Your task to perform on an android device: Go to sound settings Image 0: 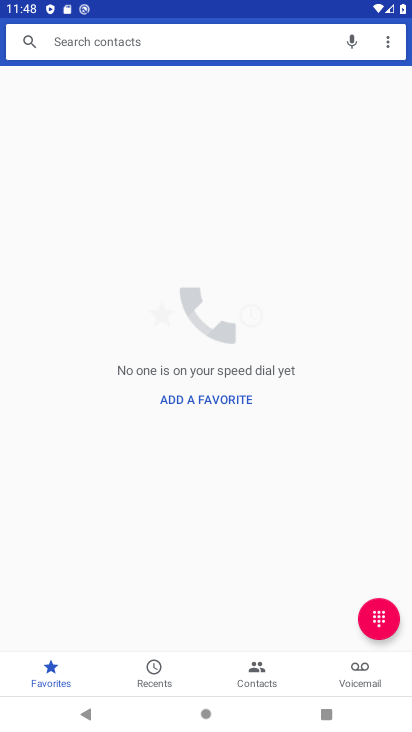
Step 0: press home button
Your task to perform on an android device: Go to sound settings Image 1: 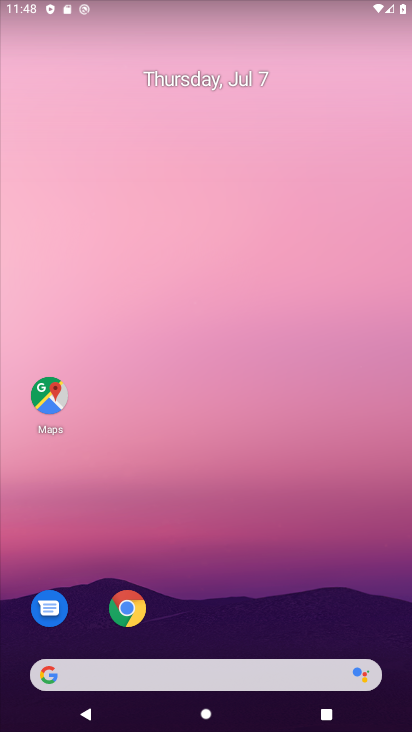
Step 1: drag from (279, 602) to (256, 161)
Your task to perform on an android device: Go to sound settings Image 2: 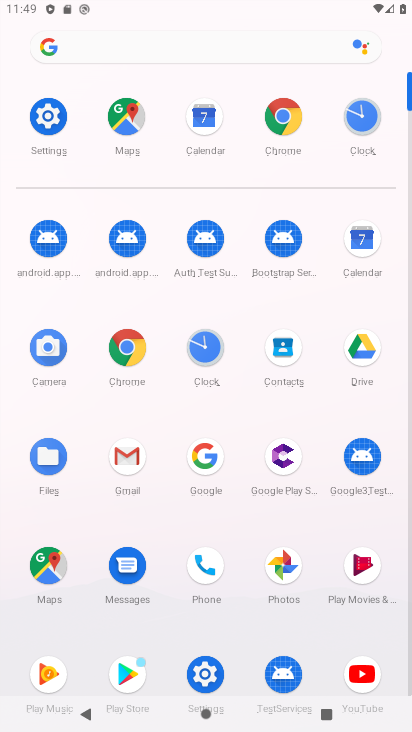
Step 2: click (49, 114)
Your task to perform on an android device: Go to sound settings Image 3: 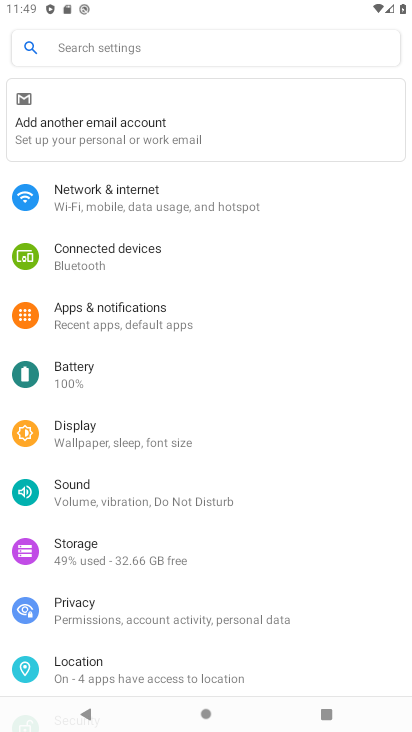
Step 3: click (167, 478)
Your task to perform on an android device: Go to sound settings Image 4: 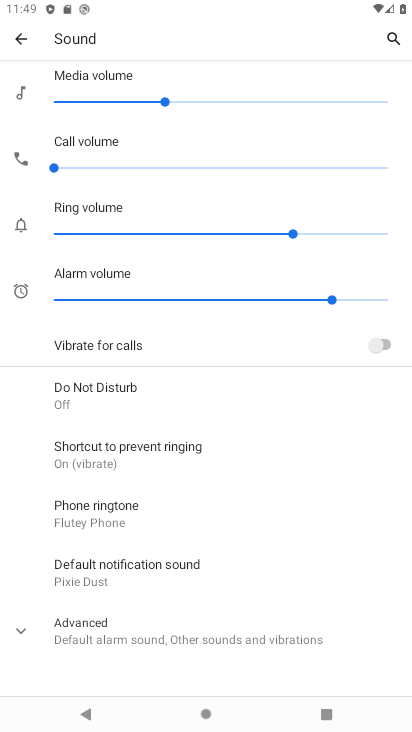
Step 4: task complete